Your task to perform on an android device: Go to Reddit.com Image 0: 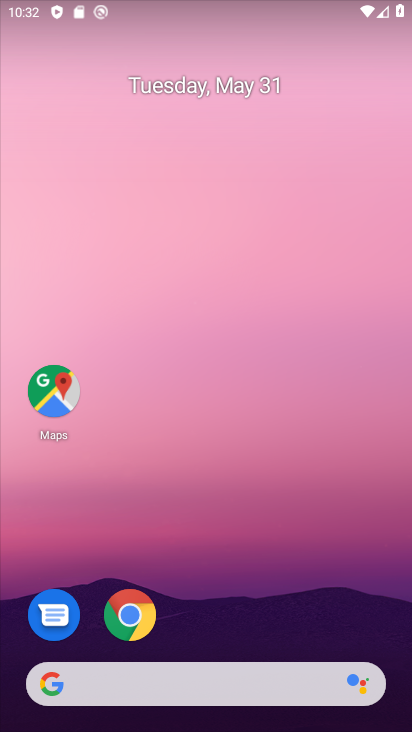
Step 0: click (138, 631)
Your task to perform on an android device: Go to Reddit.com Image 1: 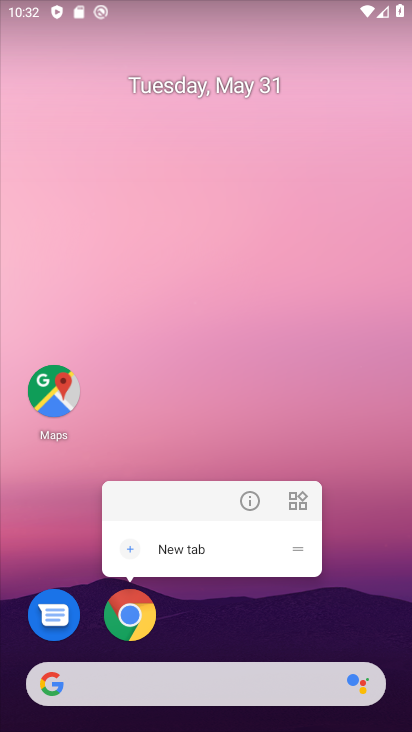
Step 1: click (138, 631)
Your task to perform on an android device: Go to Reddit.com Image 2: 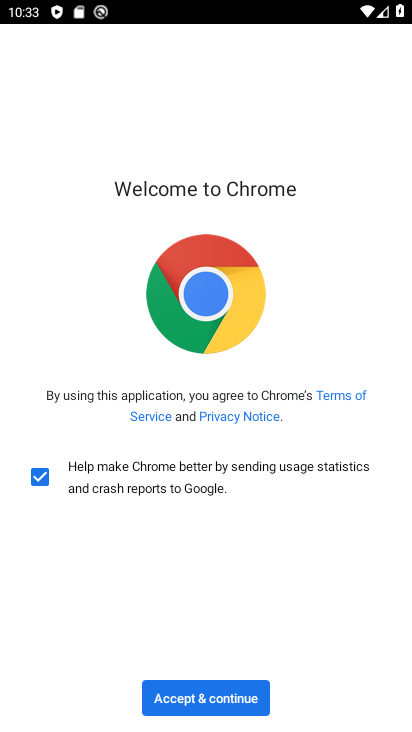
Step 2: click (241, 691)
Your task to perform on an android device: Go to Reddit.com Image 3: 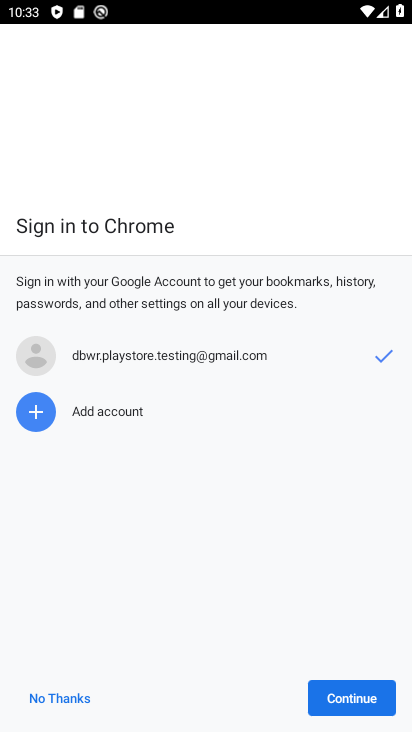
Step 3: click (321, 693)
Your task to perform on an android device: Go to Reddit.com Image 4: 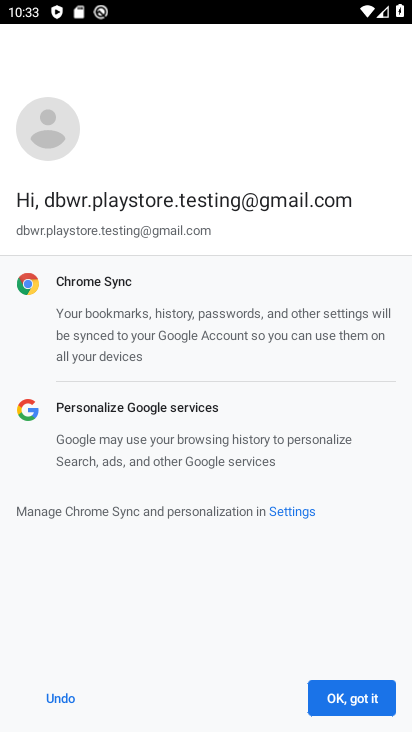
Step 4: click (321, 693)
Your task to perform on an android device: Go to Reddit.com Image 5: 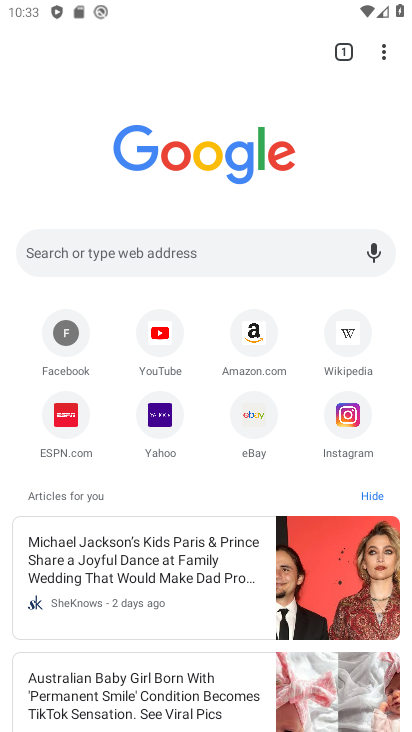
Step 5: click (240, 244)
Your task to perform on an android device: Go to Reddit.com Image 6: 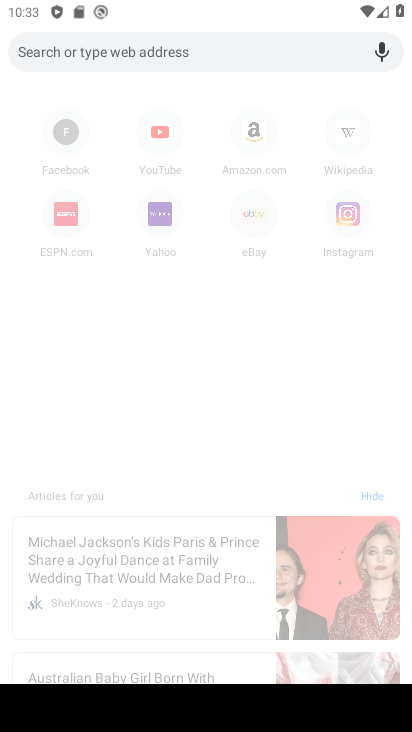
Step 6: type "reddit.com"
Your task to perform on an android device: Go to Reddit.com Image 7: 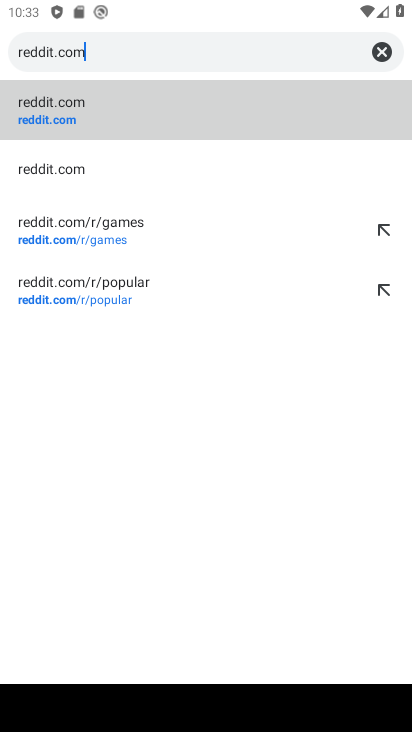
Step 7: click (64, 114)
Your task to perform on an android device: Go to Reddit.com Image 8: 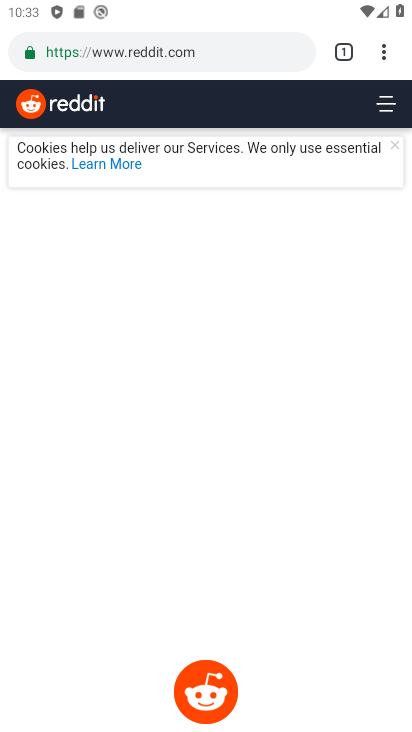
Step 8: task complete